Your task to perform on an android device: Check the news Image 0: 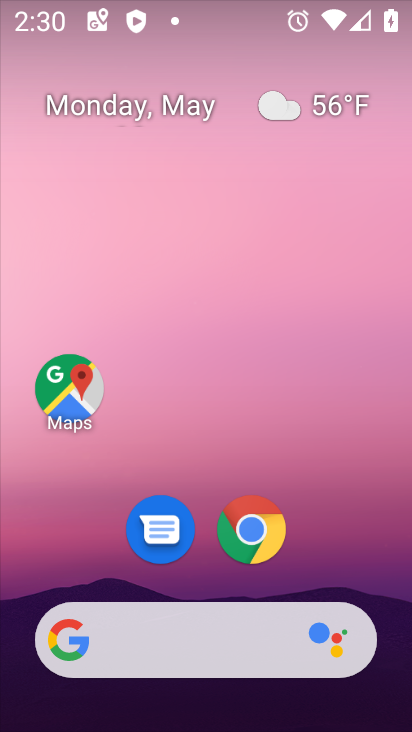
Step 0: click (158, 644)
Your task to perform on an android device: Check the news Image 1: 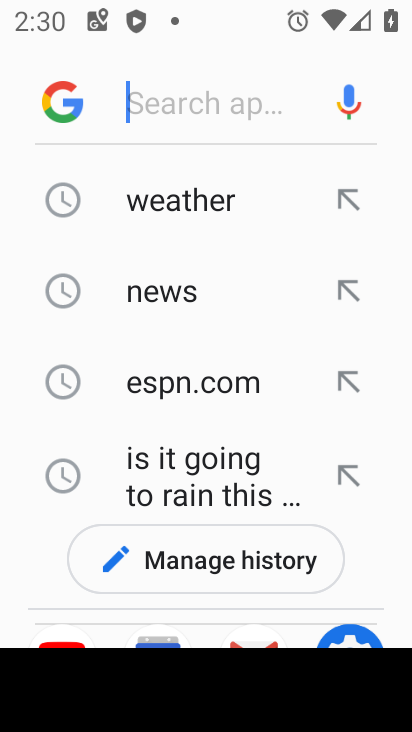
Step 1: type "news"
Your task to perform on an android device: Check the news Image 2: 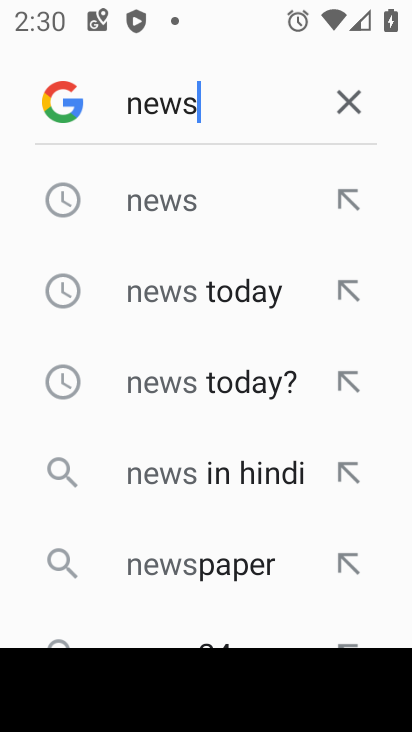
Step 2: click (120, 219)
Your task to perform on an android device: Check the news Image 3: 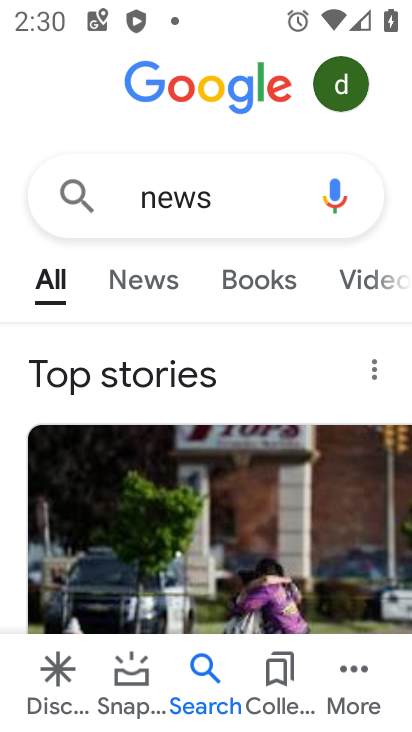
Step 3: click (164, 294)
Your task to perform on an android device: Check the news Image 4: 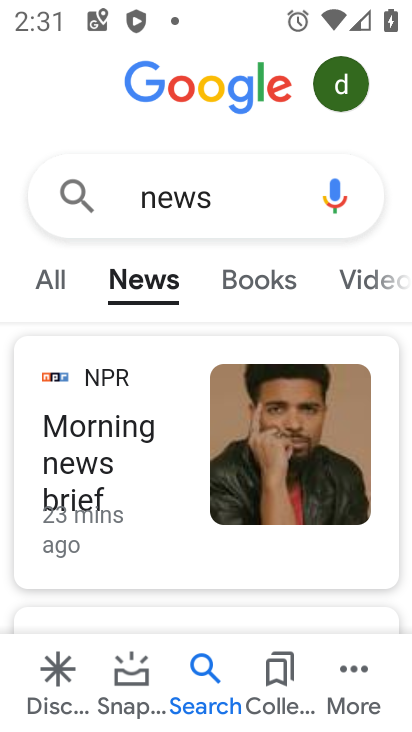
Step 4: task complete